Your task to perform on an android device: How big is a tiger? Image 0: 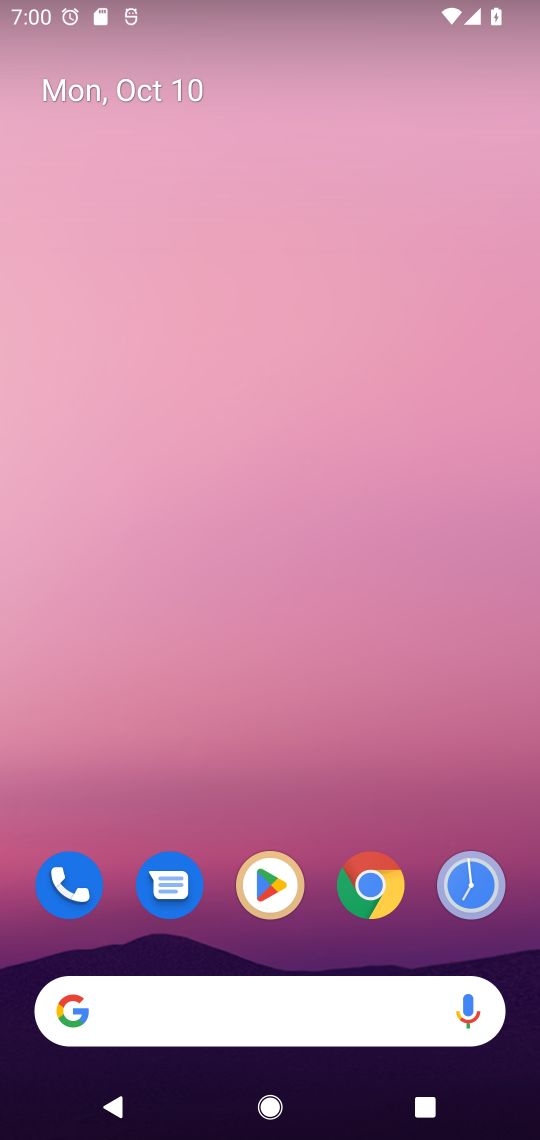
Step 0: click (368, 895)
Your task to perform on an android device: How big is a tiger? Image 1: 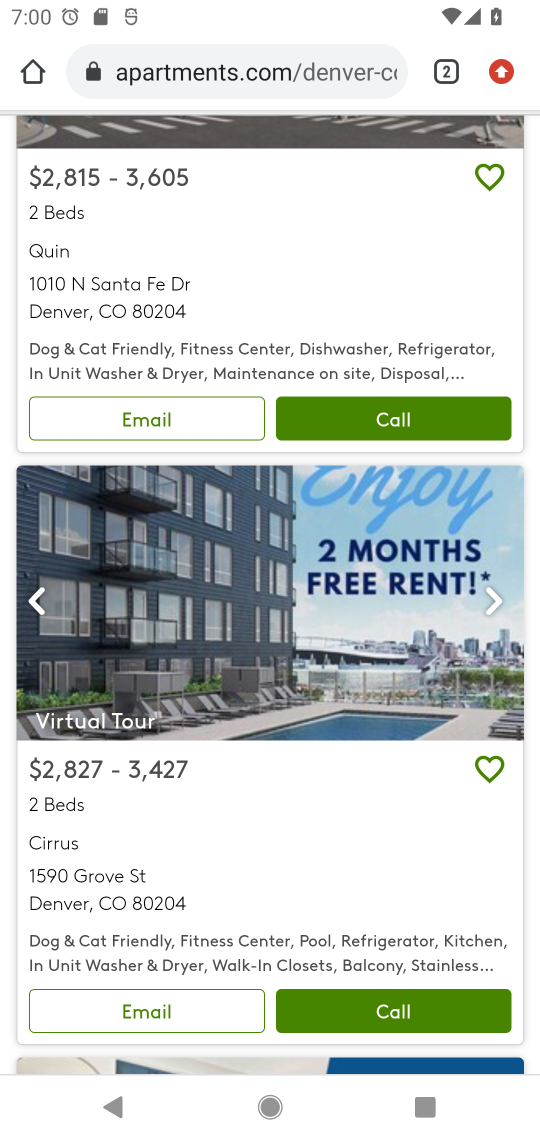
Step 1: click (236, 78)
Your task to perform on an android device: How big is a tiger? Image 2: 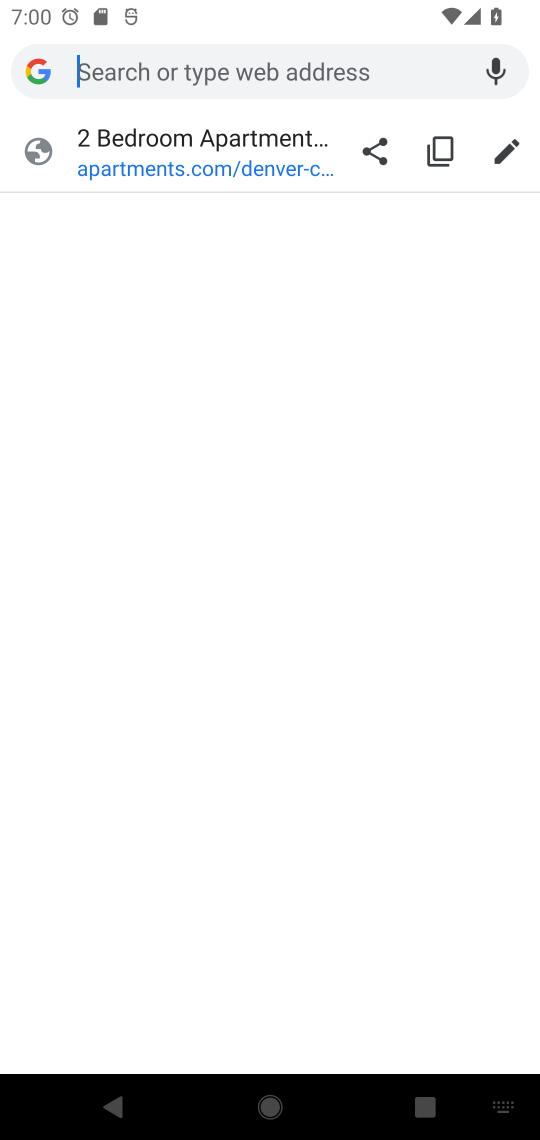
Step 2: type "How big is a tiger"
Your task to perform on an android device: How big is a tiger? Image 3: 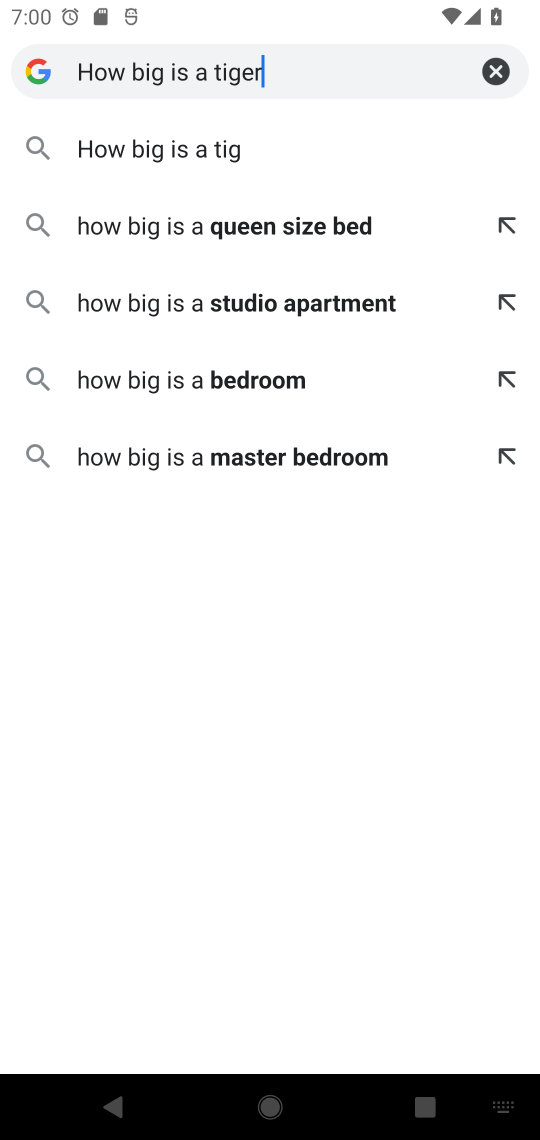
Step 3: type ""
Your task to perform on an android device: How big is a tiger? Image 4: 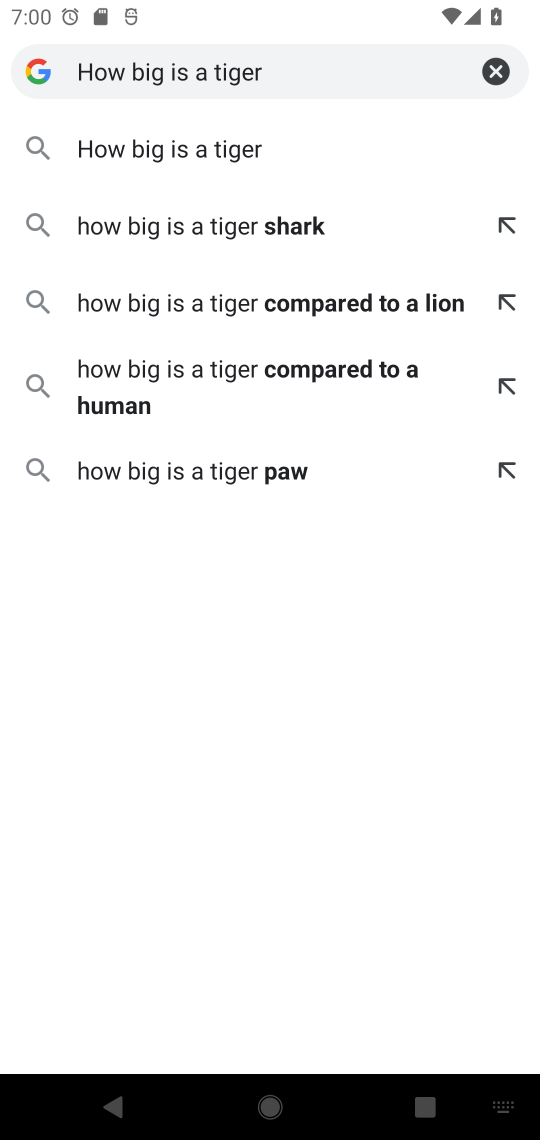
Step 4: click (174, 164)
Your task to perform on an android device: How big is a tiger? Image 5: 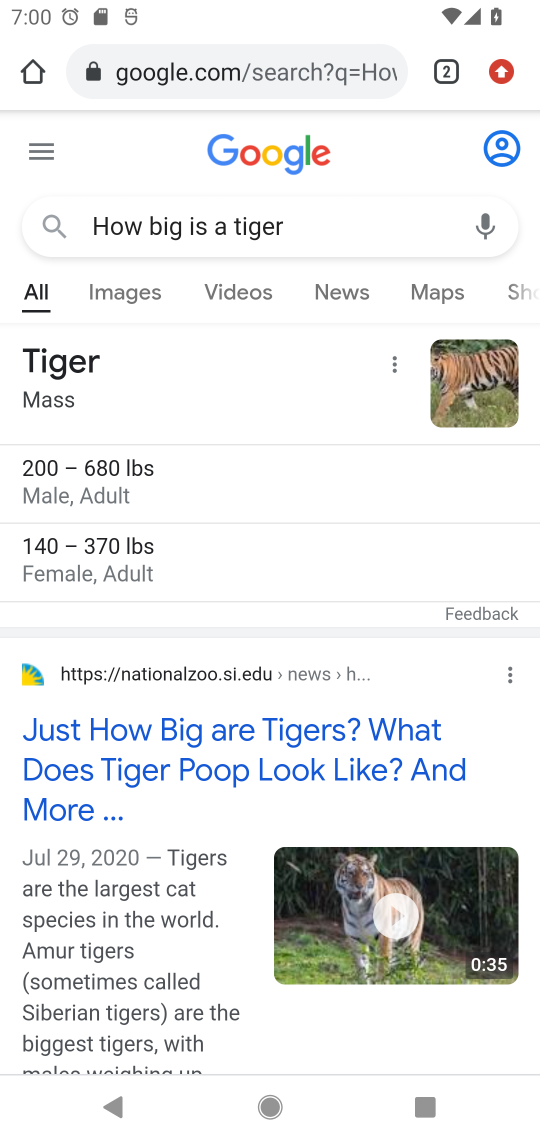
Step 5: task complete